Your task to perform on an android device: Open Chrome and go to settings Image 0: 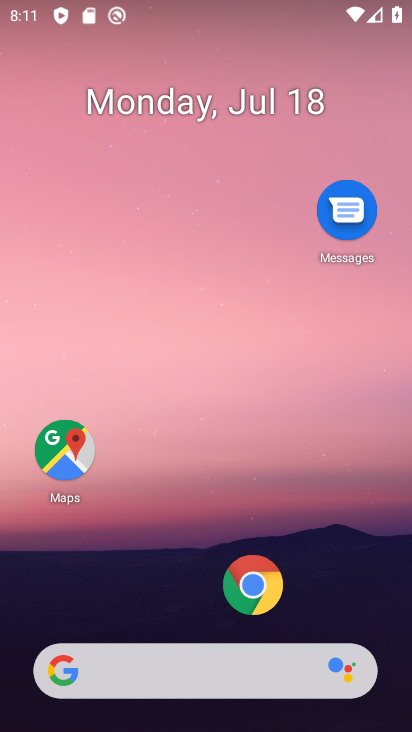
Step 0: click (258, 591)
Your task to perform on an android device: Open Chrome and go to settings Image 1: 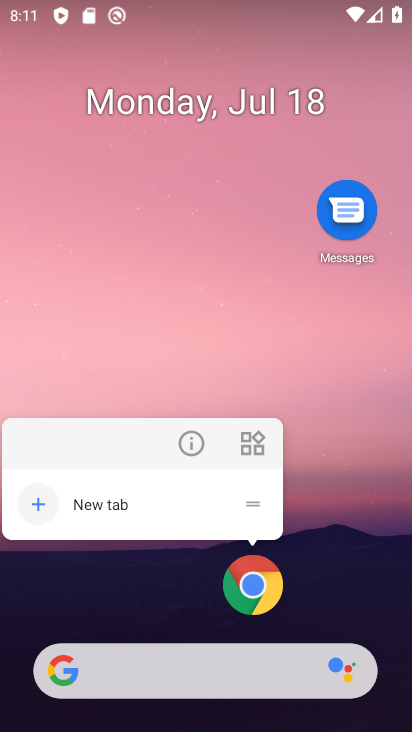
Step 1: click (256, 595)
Your task to perform on an android device: Open Chrome and go to settings Image 2: 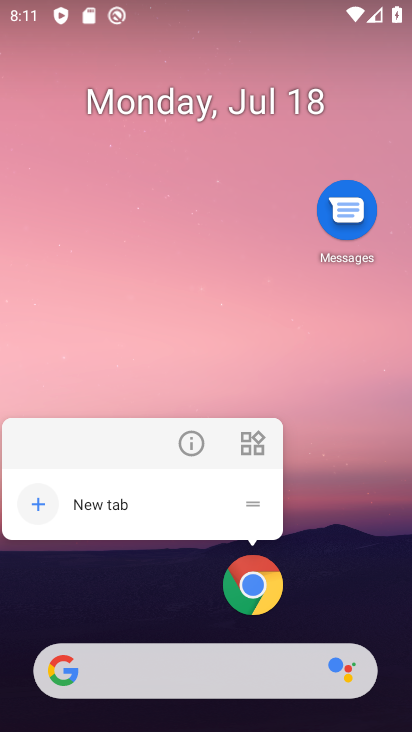
Step 2: click (251, 589)
Your task to perform on an android device: Open Chrome and go to settings Image 3: 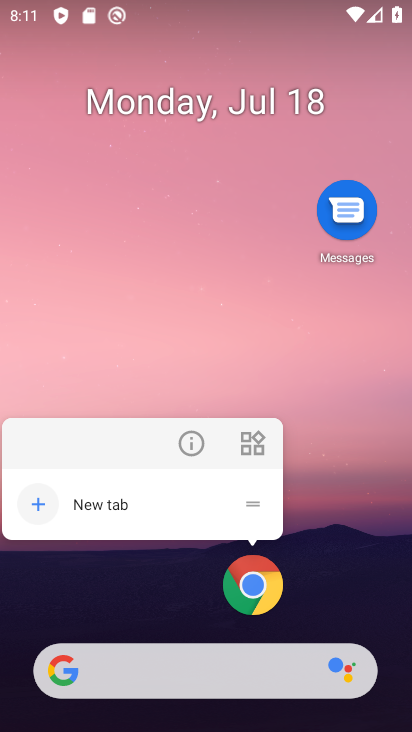
Step 3: click (251, 589)
Your task to perform on an android device: Open Chrome and go to settings Image 4: 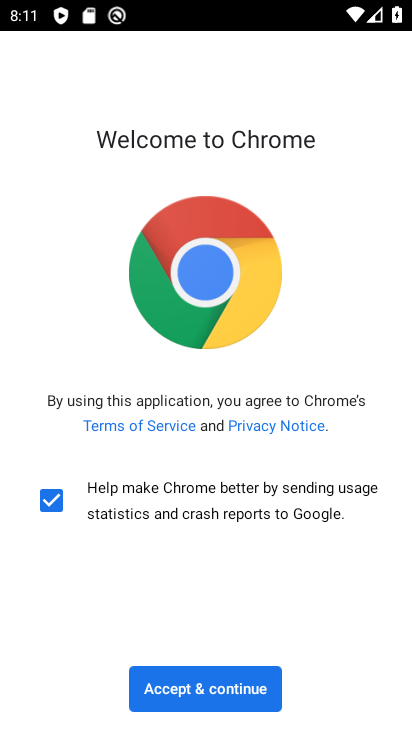
Step 4: click (185, 685)
Your task to perform on an android device: Open Chrome and go to settings Image 5: 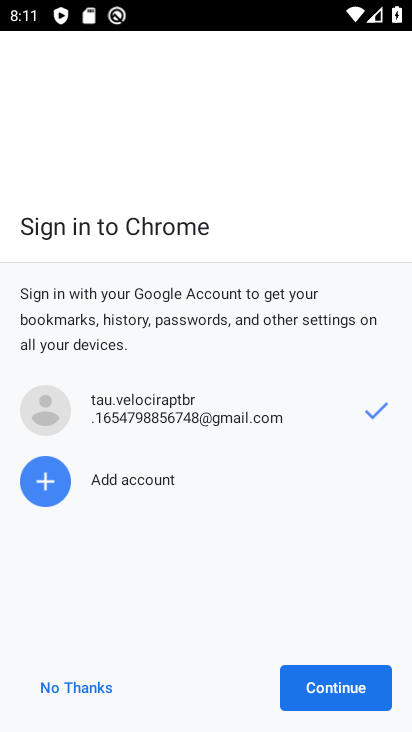
Step 5: click (317, 690)
Your task to perform on an android device: Open Chrome and go to settings Image 6: 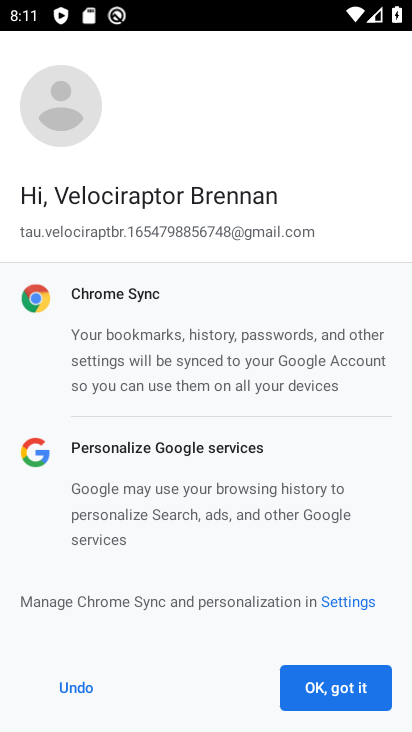
Step 6: click (317, 690)
Your task to perform on an android device: Open Chrome and go to settings Image 7: 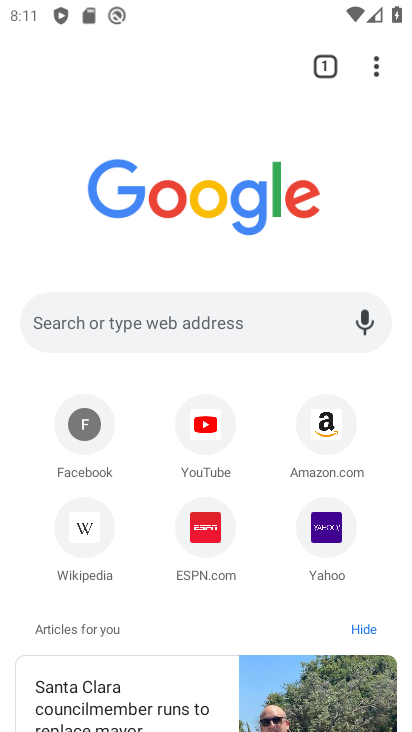
Step 7: task complete